Your task to perform on an android device: toggle notification dots Image 0: 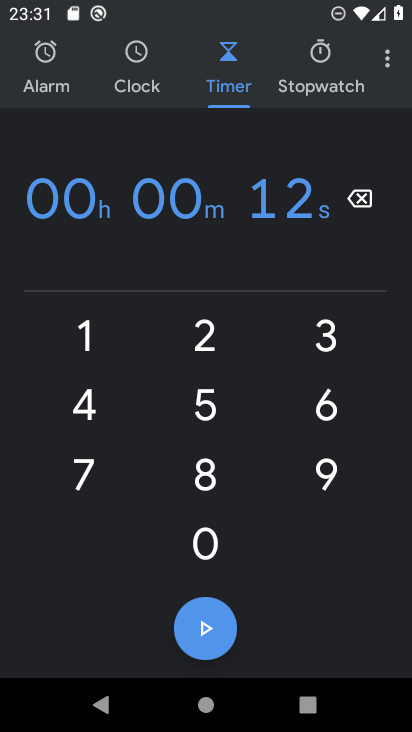
Step 0: press home button
Your task to perform on an android device: toggle notification dots Image 1: 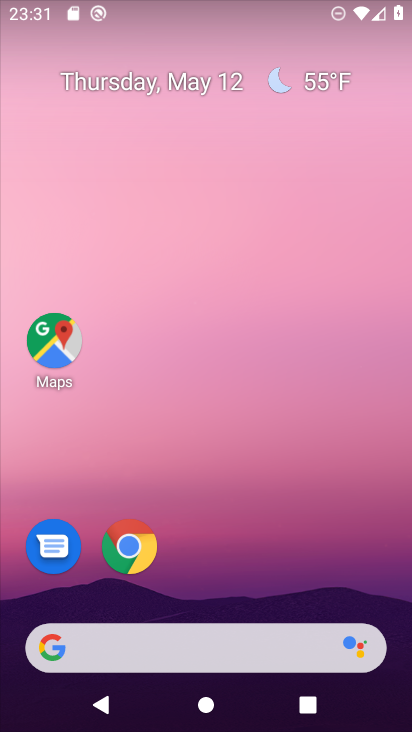
Step 1: press home button
Your task to perform on an android device: toggle notification dots Image 2: 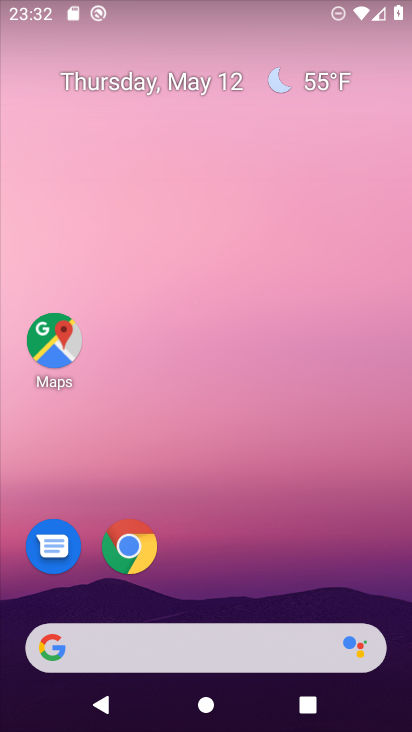
Step 2: drag from (194, 215) to (204, 150)
Your task to perform on an android device: toggle notification dots Image 3: 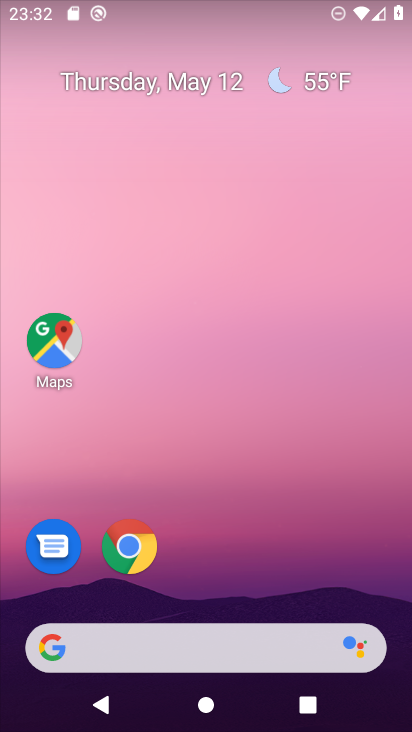
Step 3: drag from (184, 579) to (187, 201)
Your task to perform on an android device: toggle notification dots Image 4: 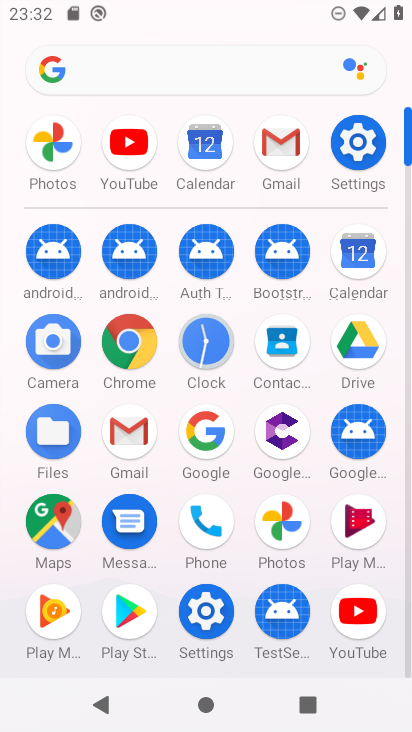
Step 4: click (212, 604)
Your task to perform on an android device: toggle notification dots Image 5: 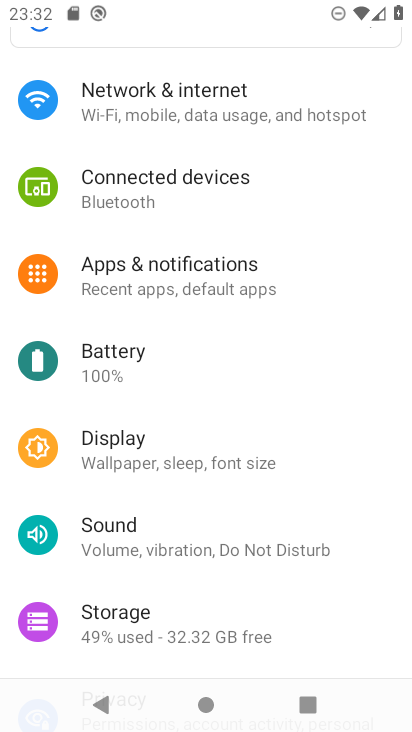
Step 5: click (200, 258)
Your task to perform on an android device: toggle notification dots Image 6: 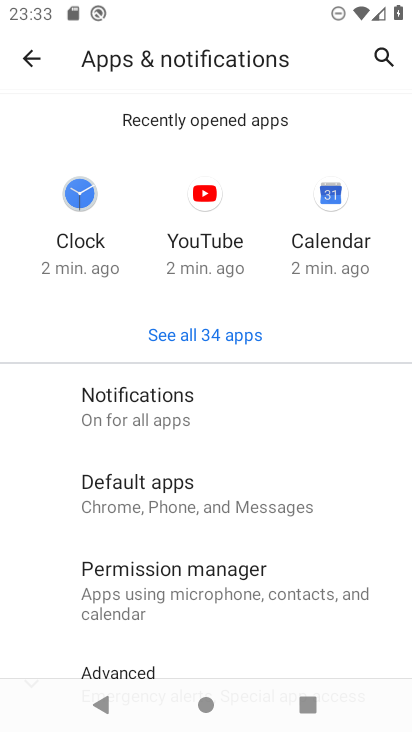
Step 6: click (151, 415)
Your task to perform on an android device: toggle notification dots Image 7: 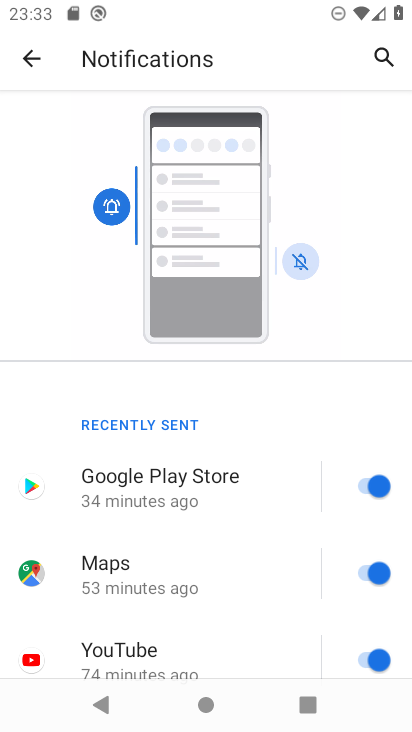
Step 7: drag from (132, 598) to (126, 209)
Your task to perform on an android device: toggle notification dots Image 8: 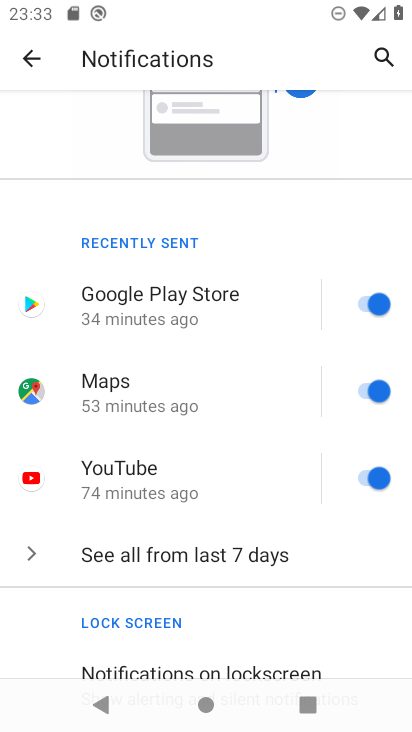
Step 8: drag from (150, 642) to (169, 212)
Your task to perform on an android device: toggle notification dots Image 9: 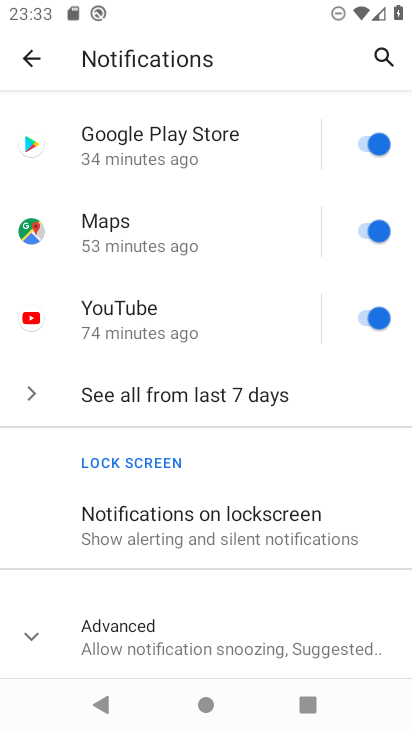
Step 9: click (22, 630)
Your task to perform on an android device: toggle notification dots Image 10: 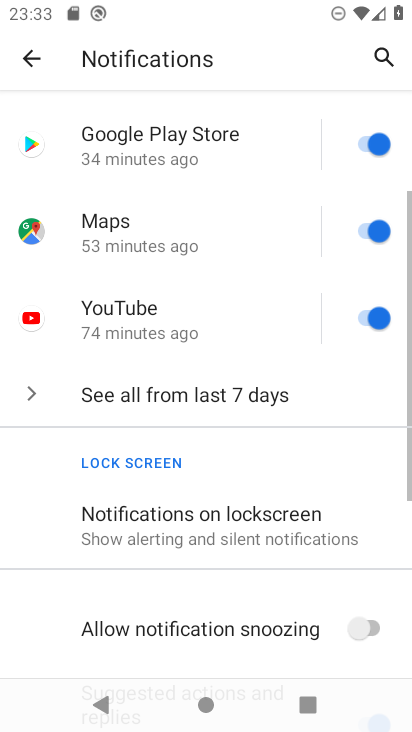
Step 10: drag from (217, 638) to (217, 216)
Your task to perform on an android device: toggle notification dots Image 11: 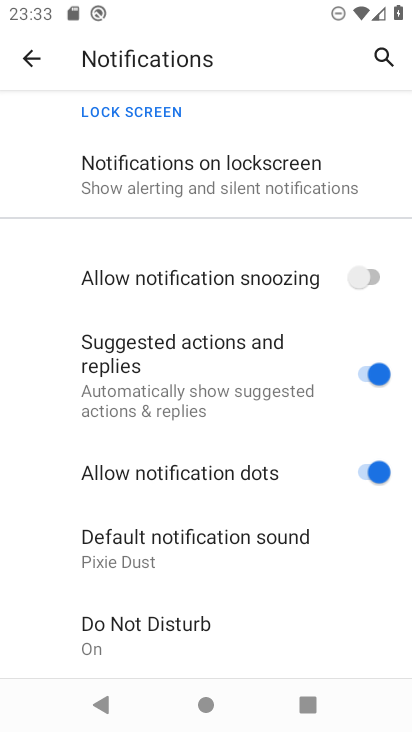
Step 11: click (364, 469)
Your task to perform on an android device: toggle notification dots Image 12: 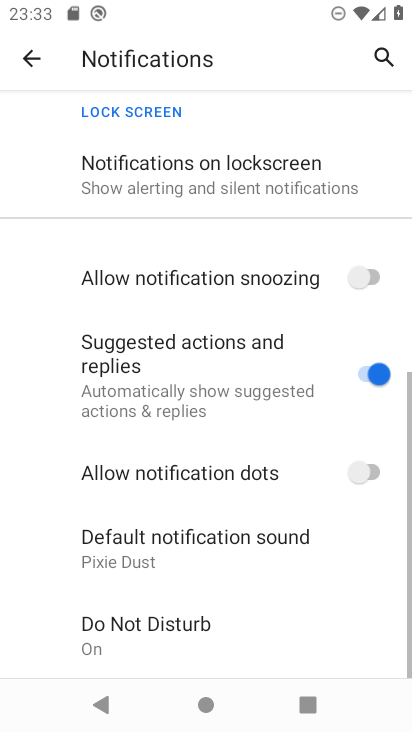
Step 12: task complete